Your task to perform on an android device: Add "asus rog" to the cart on walmart Image 0: 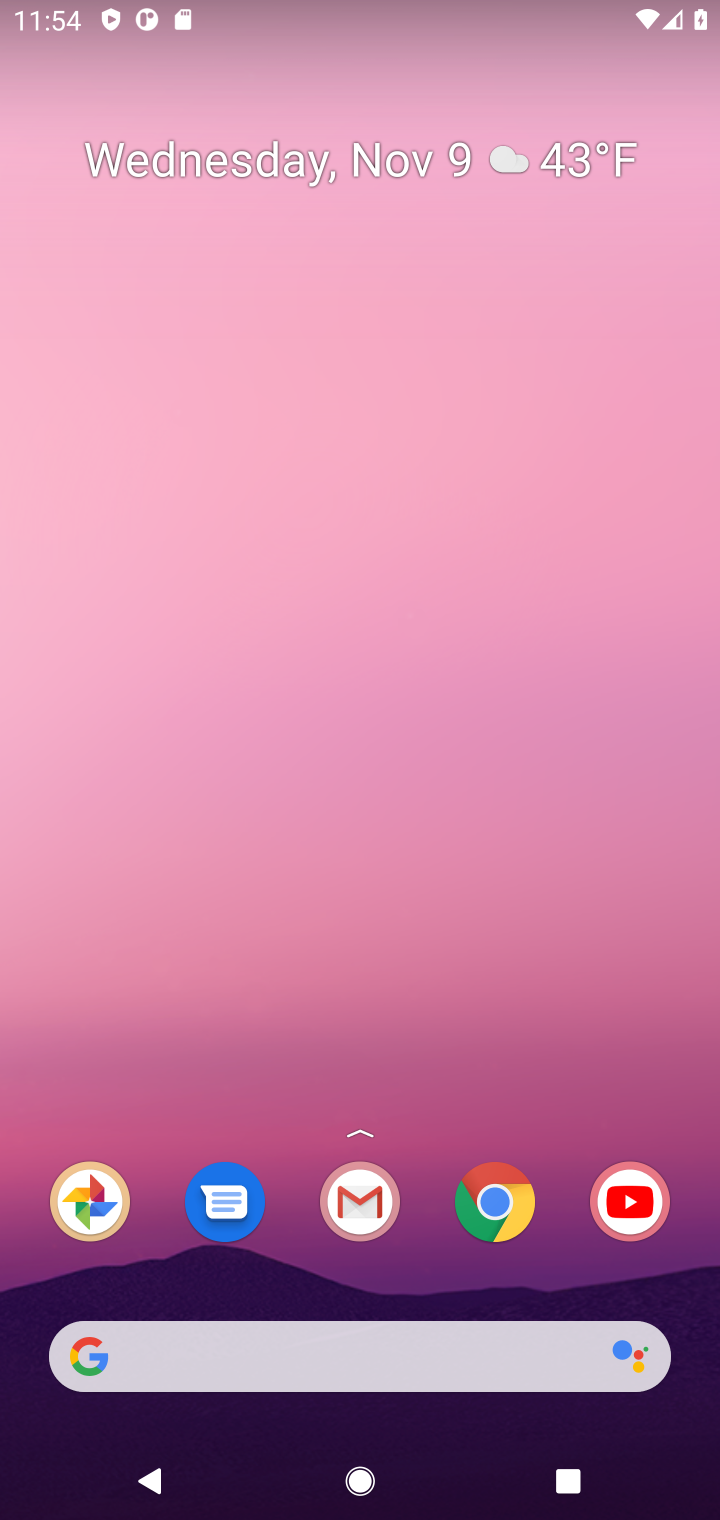
Step 0: click (521, 1200)
Your task to perform on an android device: Add "asus rog" to the cart on walmart Image 1: 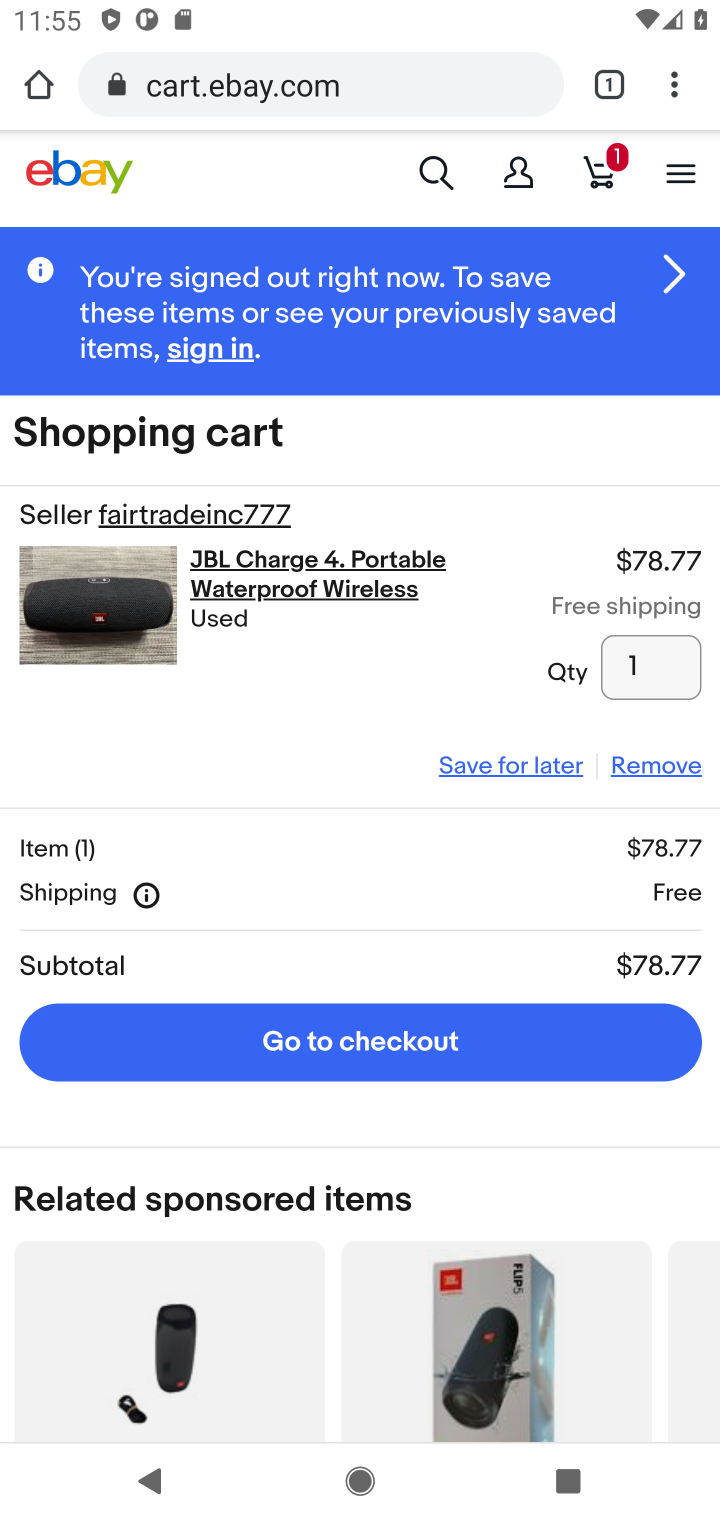
Step 1: click (398, 78)
Your task to perform on an android device: Add "asus rog" to the cart on walmart Image 2: 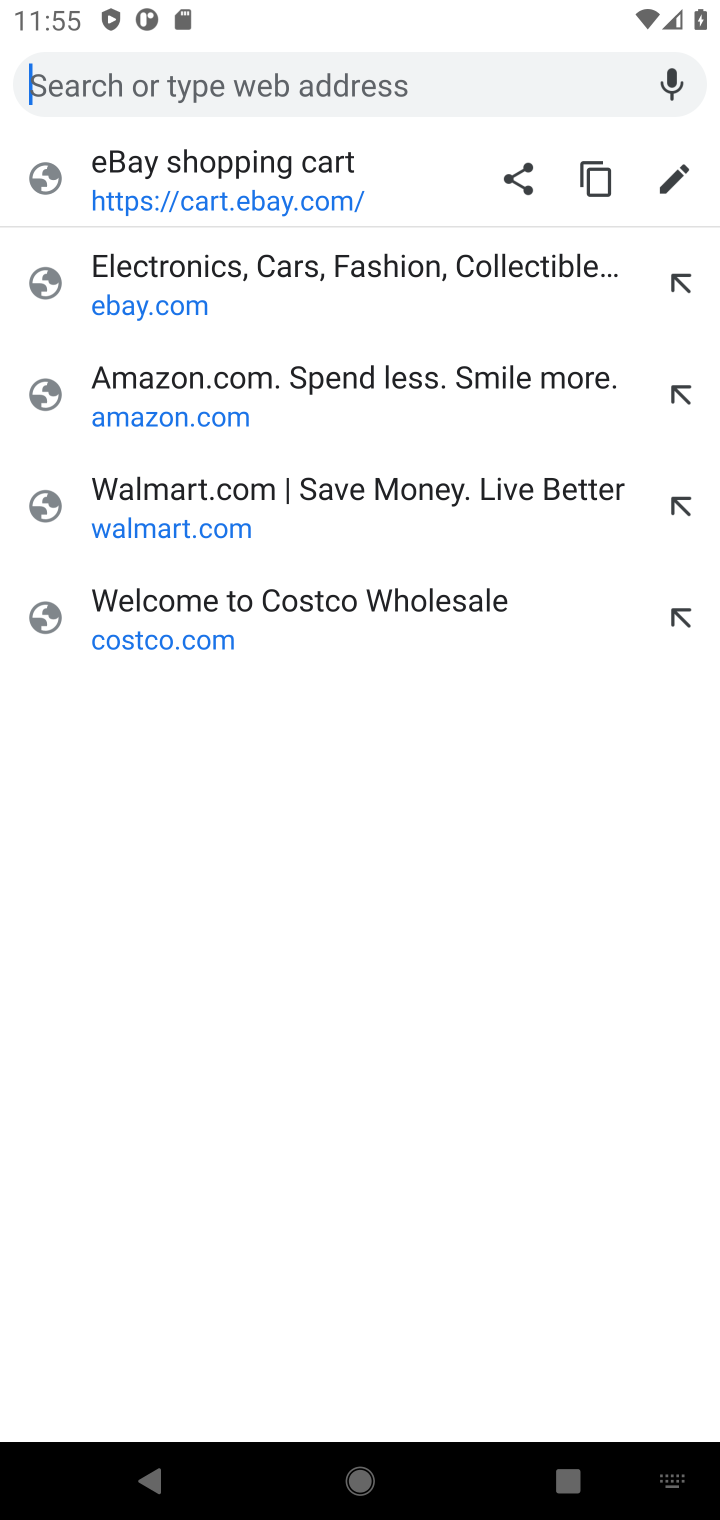
Step 2: type "walmart"
Your task to perform on an android device: Add "asus rog" to the cart on walmart Image 3: 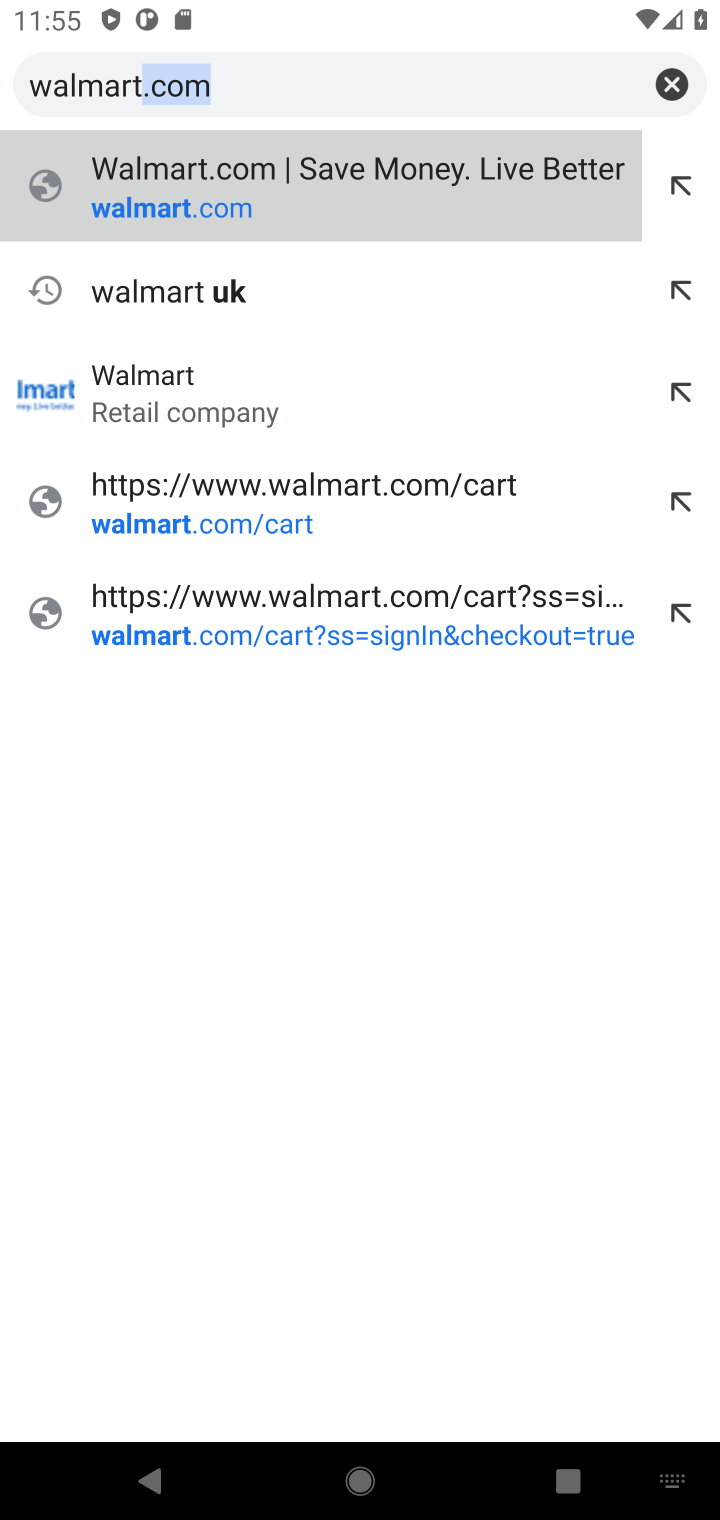
Step 3: click (302, 93)
Your task to perform on an android device: Add "asus rog" to the cart on walmart Image 4: 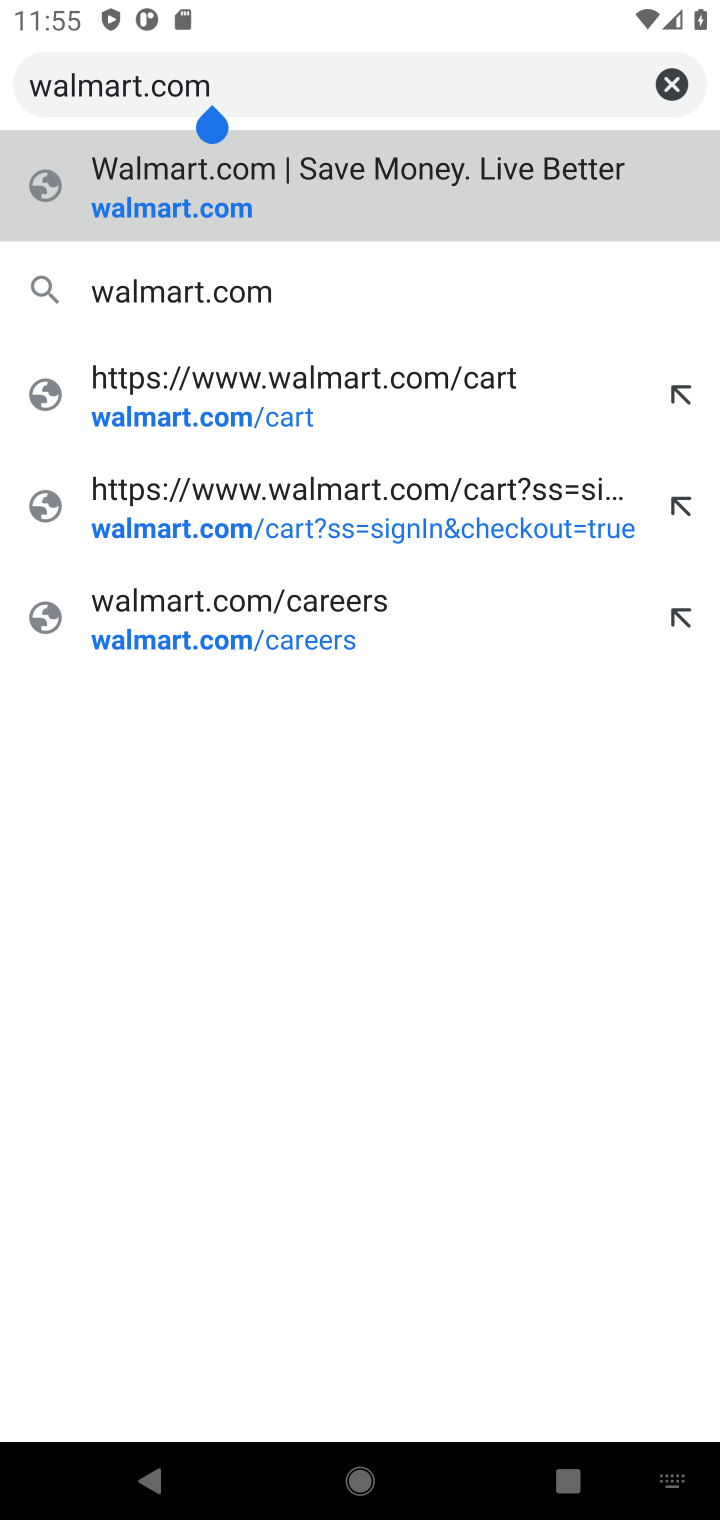
Step 4: click (222, 296)
Your task to perform on an android device: Add "asus rog" to the cart on walmart Image 5: 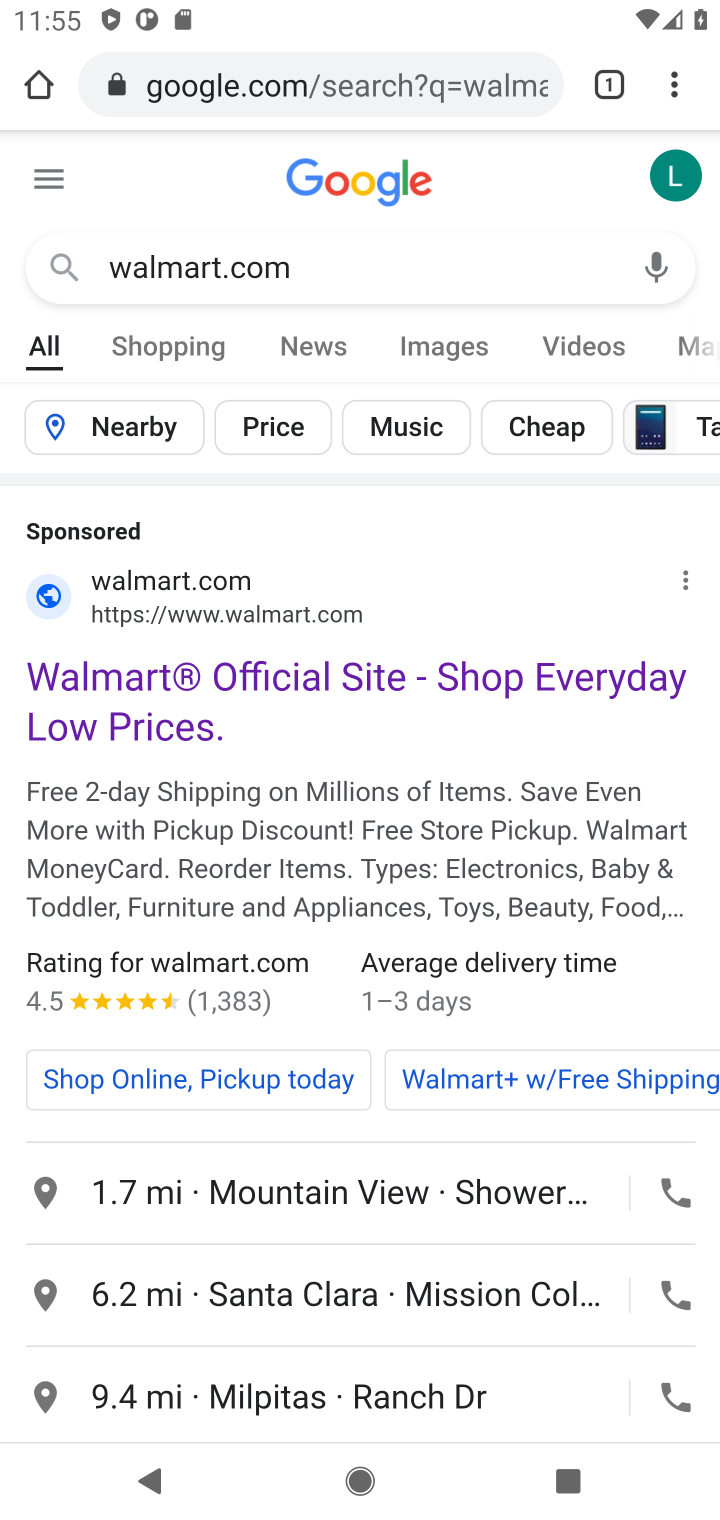
Step 5: click (240, 608)
Your task to perform on an android device: Add "asus rog" to the cart on walmart Image 6: 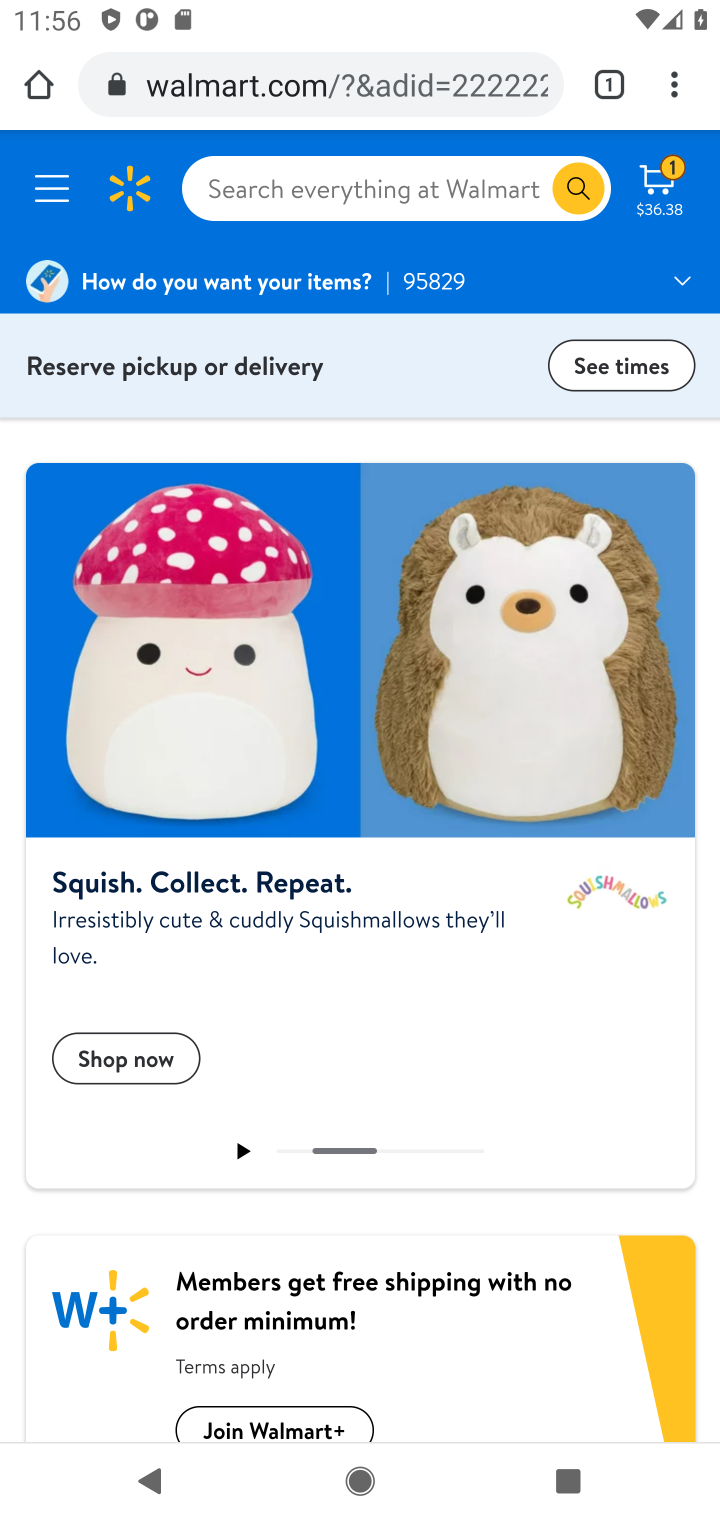
Step 6: click (368, 180)
Your task to perform on an android device: Add "asus rog" to the cart on walmart Image 7: 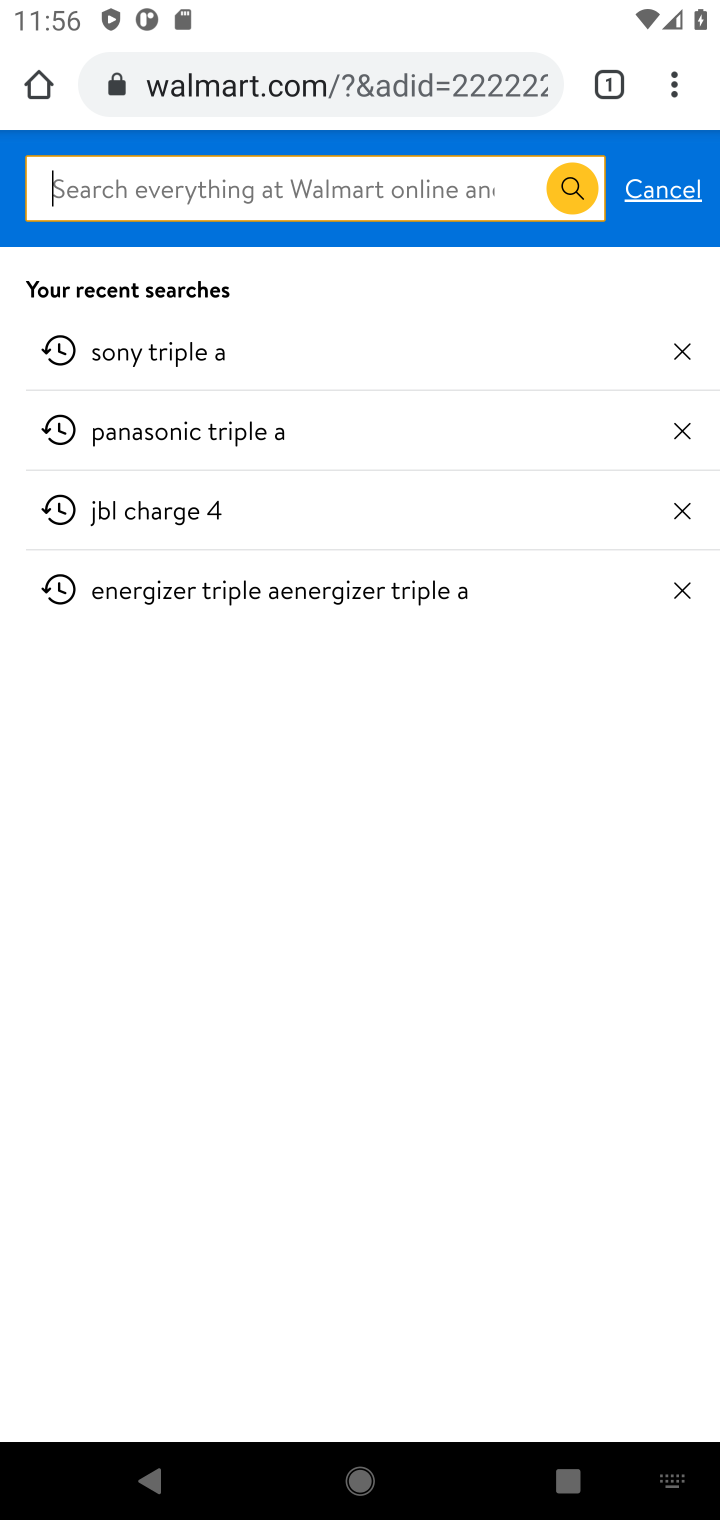
Step 7: press enter
Your task to perform on an android device: Add "asus rog" to the cart on walmart Image 8: 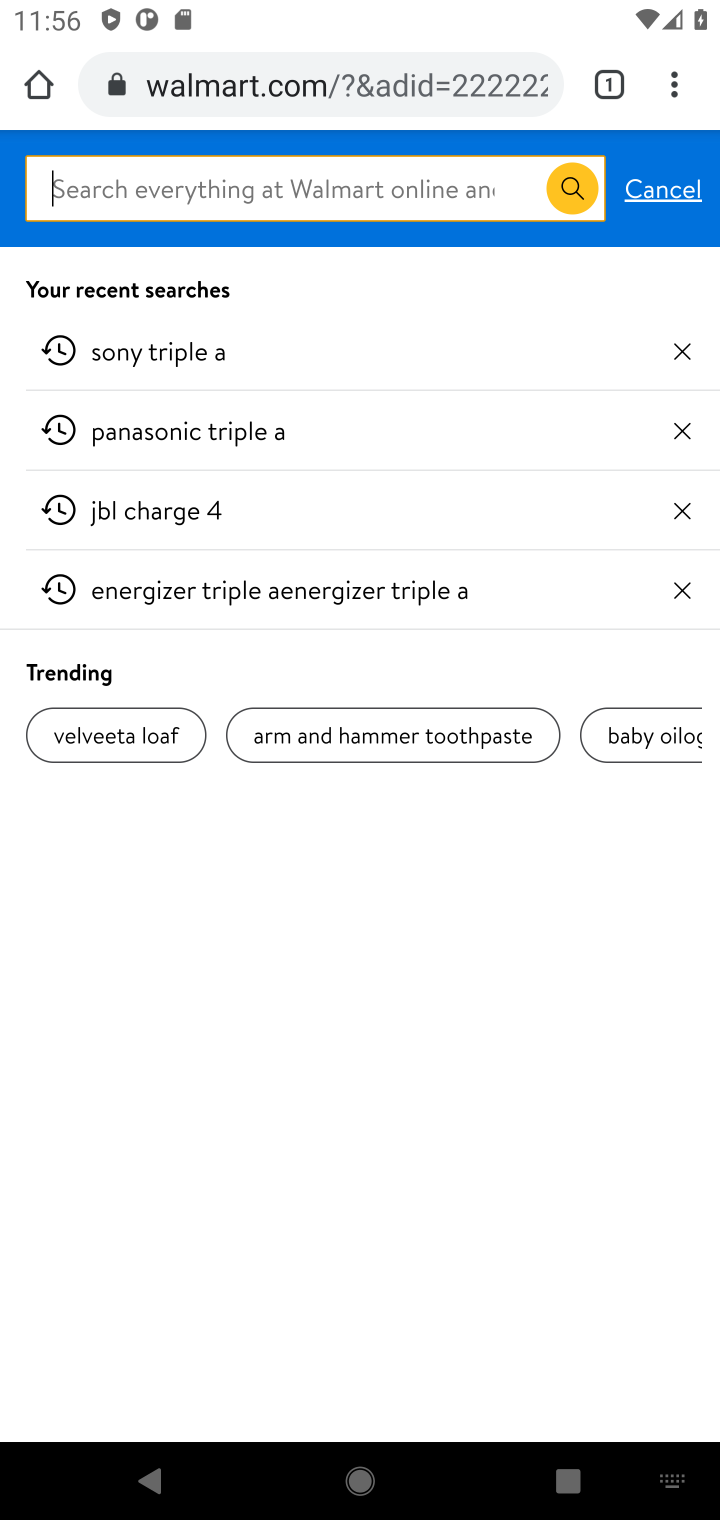
Step 8: type "asus rog"
Your task to perform on an android device: Add "asus rog" to the cart on walmart Image 9: 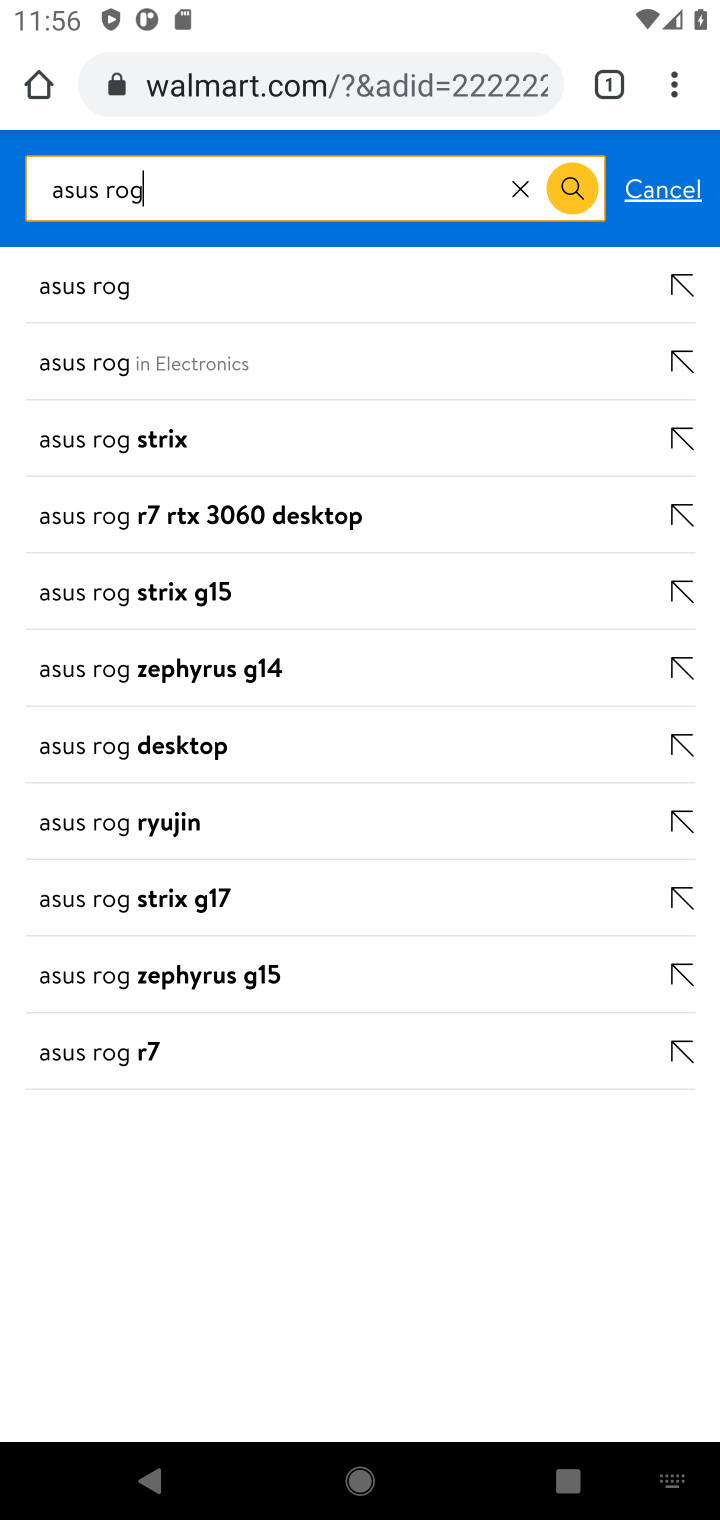
Step 9: click (89, 283)
Your task to perform on an android device: Add "asus rog" to the cart on walmart Image 10: 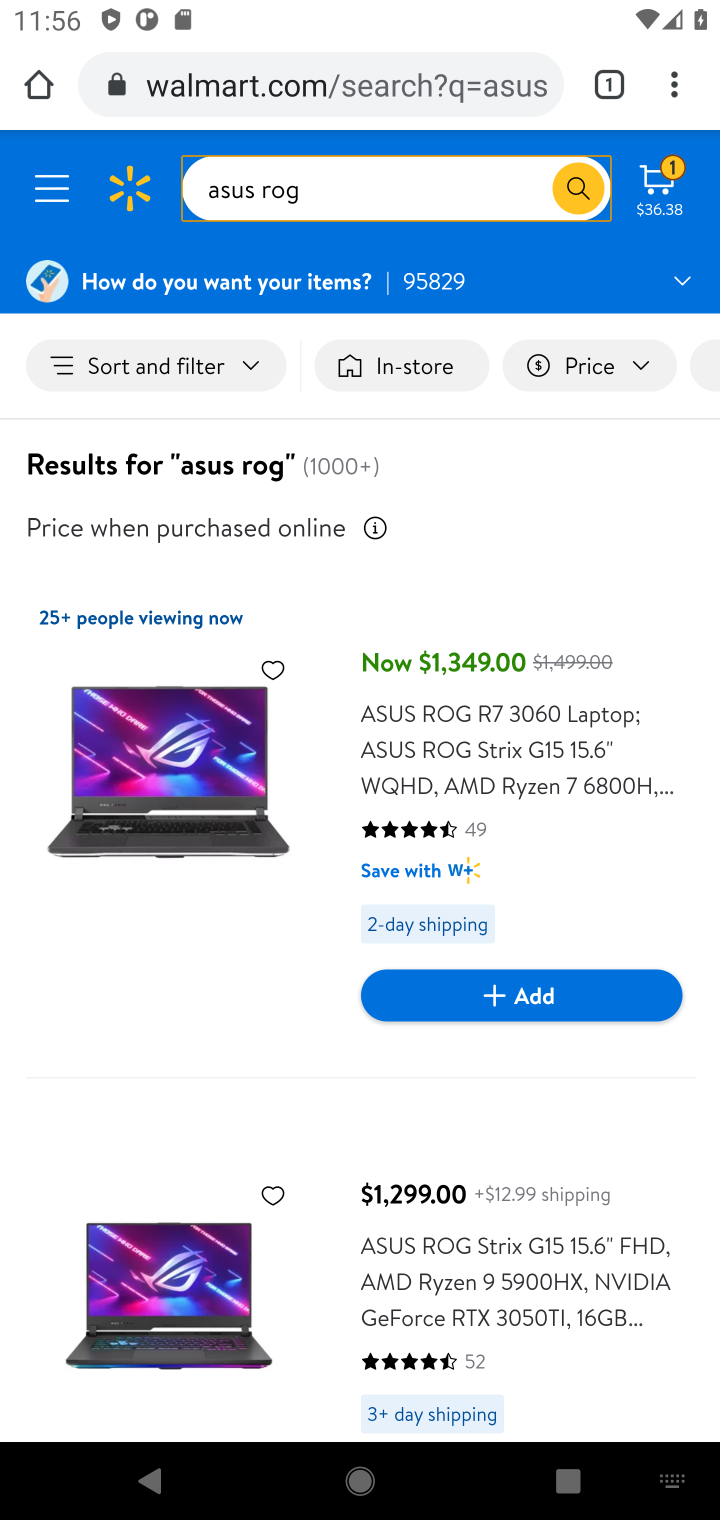
Step 10: click (178, 759)
Your task to perform on an android device: Add "asus rog" to the cart on walmart Image 11: 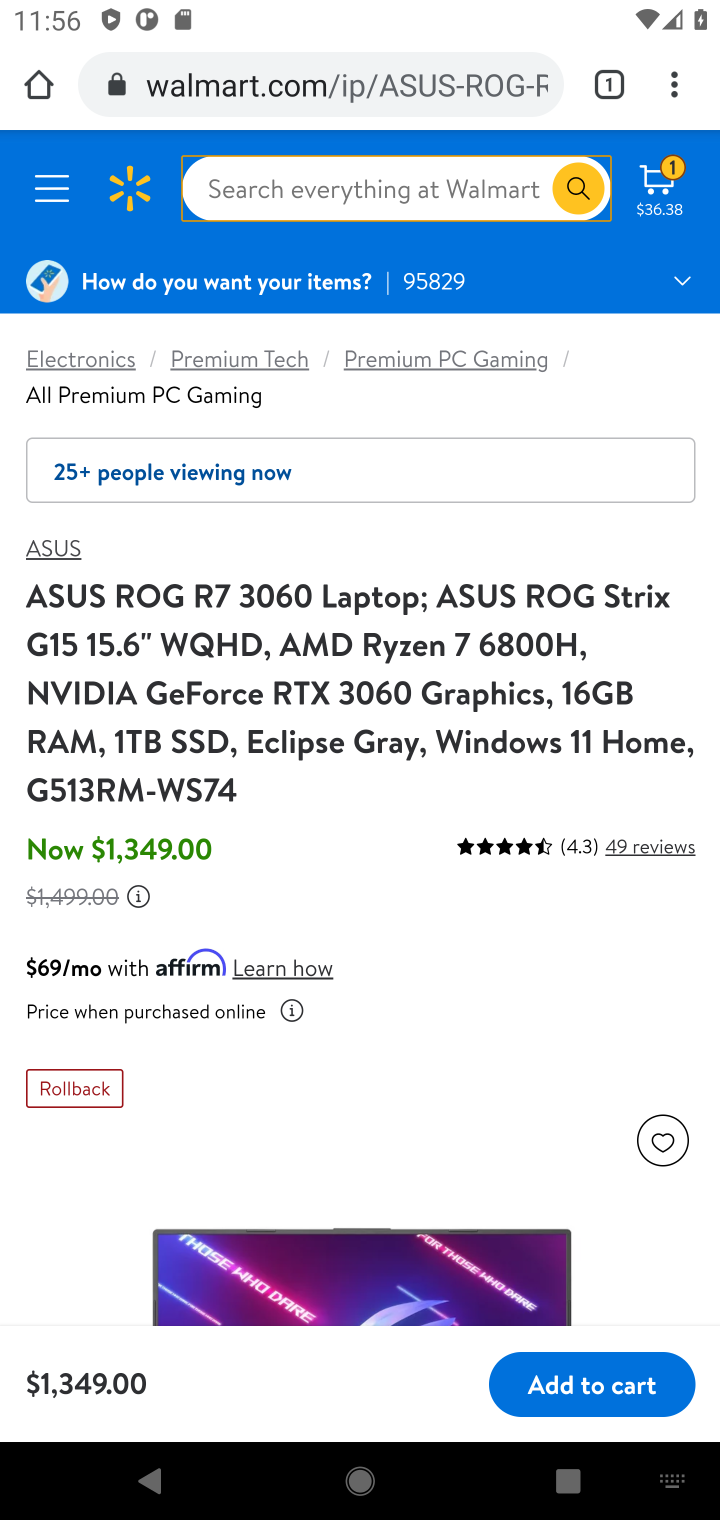
Step 11: click (628, 1398)
Your task to perform on an android device: Add "asus rog" to the cart on walmart Image 12: 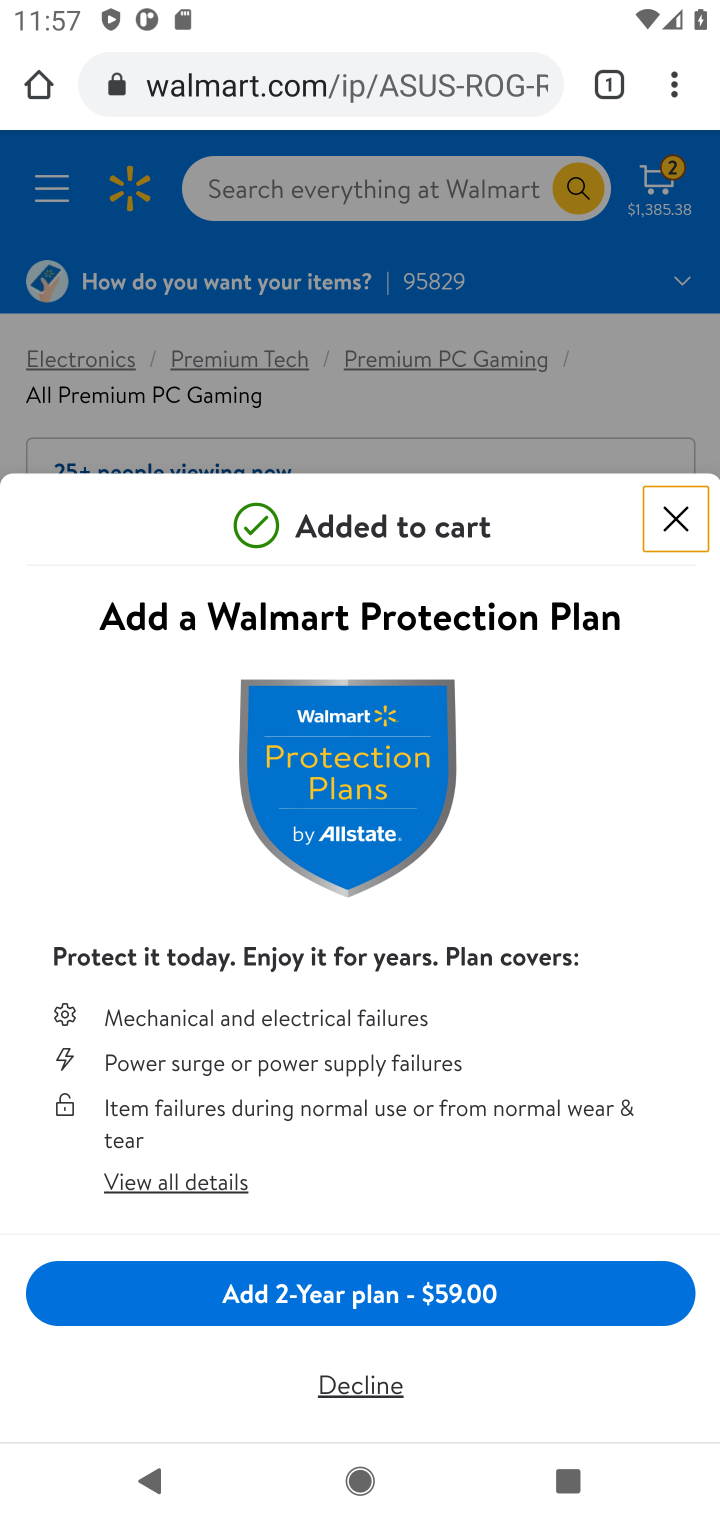
Step 12: task complete